Your task to perform on an android device: See recent photos Image 0: 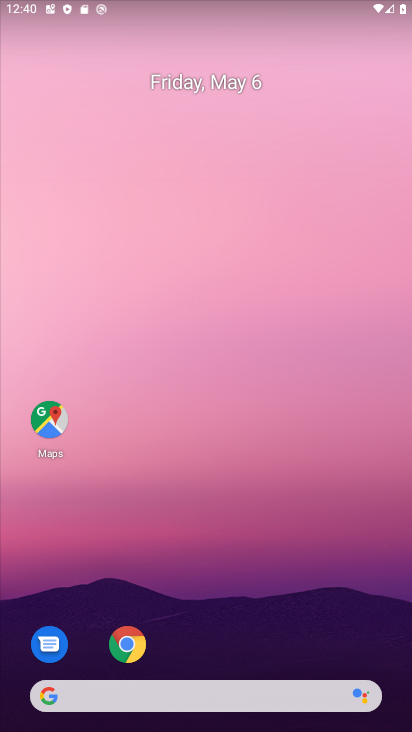
Step 0: drag from (308, 684) to (175, 10)
Your task to perform on an android device: See recent photos Image 1: 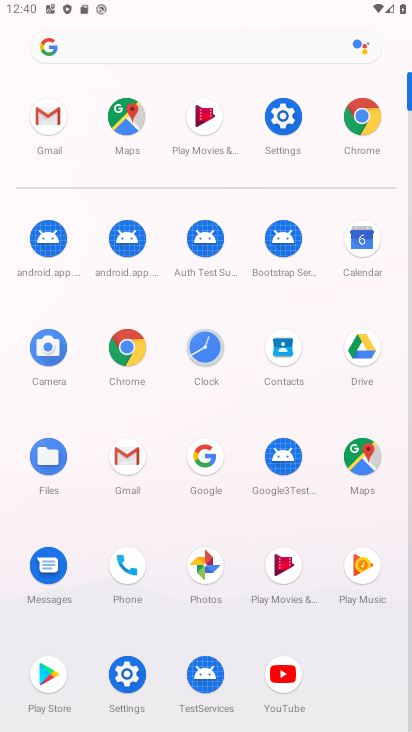
Step 1: click (203, 563)
Your task to perform on an android device: See recent photos Image 2: 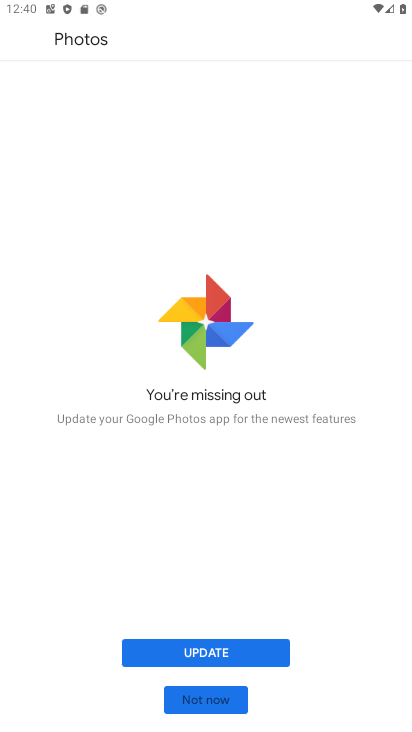
Step 2: click (189, 639)
Your task to perform on an android device: See recent photos Image 3: 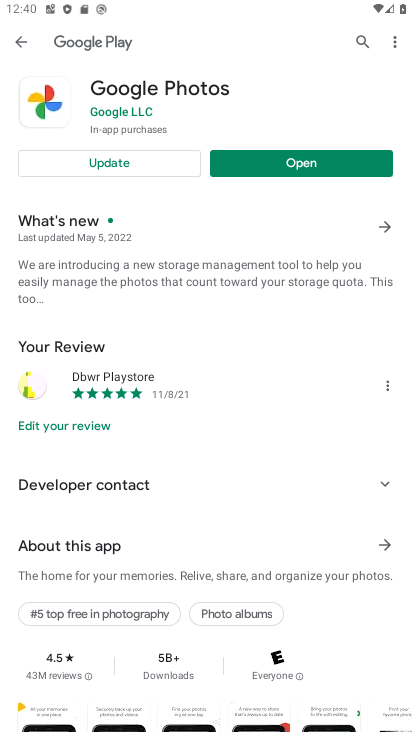
Step 3: click (131, 162)
Your task to perform on an android device: See recent photos Image 4: 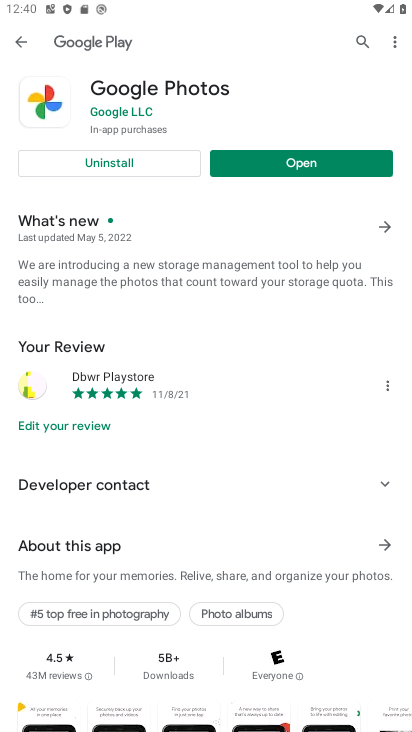
Step 4: click (311, 166)
Your task to perform on an android device: See recent photos Image 5: 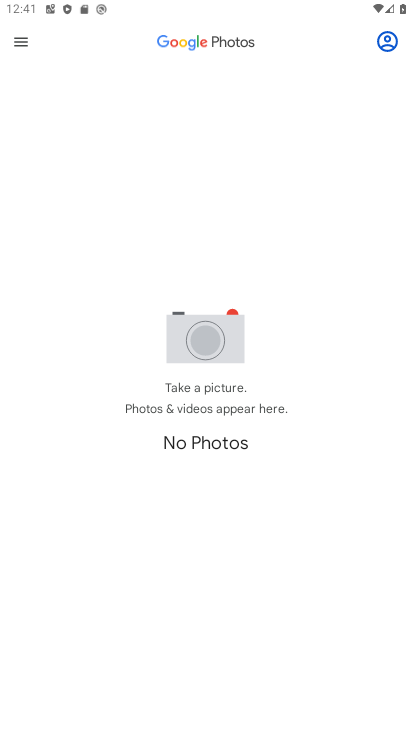
Step 5: click (25, 43)
Your task to perform on an android device: See recent photos Image 6: 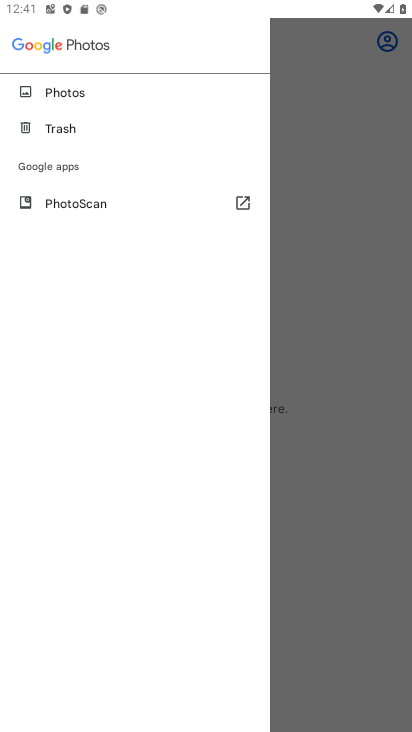
Step 6: click (63, 86)
Your task to perform on an android device: See recent photos Image 7: 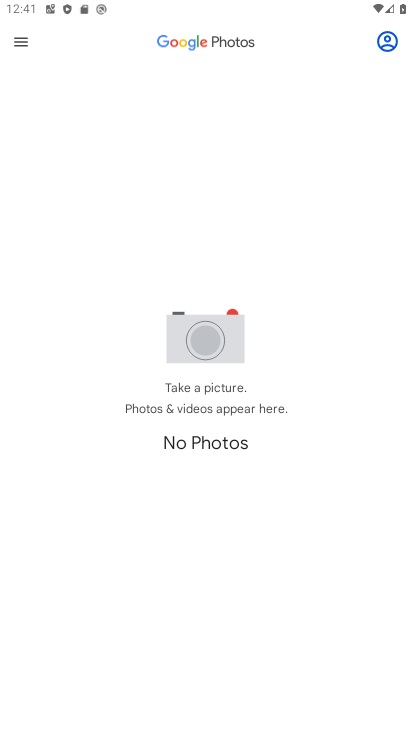
Step 7: task complete